Your task to perform on an android device: Show me popular videos on Youtube Image 0: 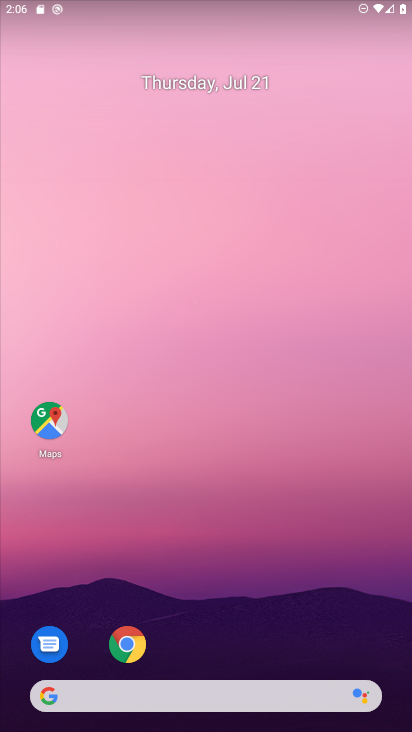
Step 0: drag from (261, 625) to (264, 180)
Your task to perform on an android device: Show me popular videos on Youtube Image 1: 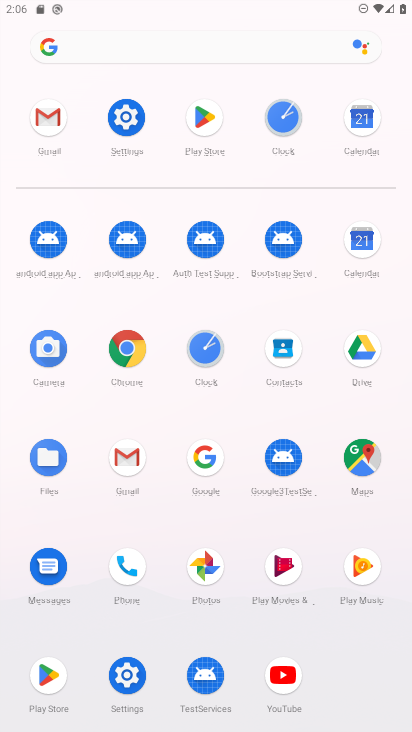
Step 1: click (272, 678)
Your task to perform on an android device: Show me popular videos on Youtube Image 2: 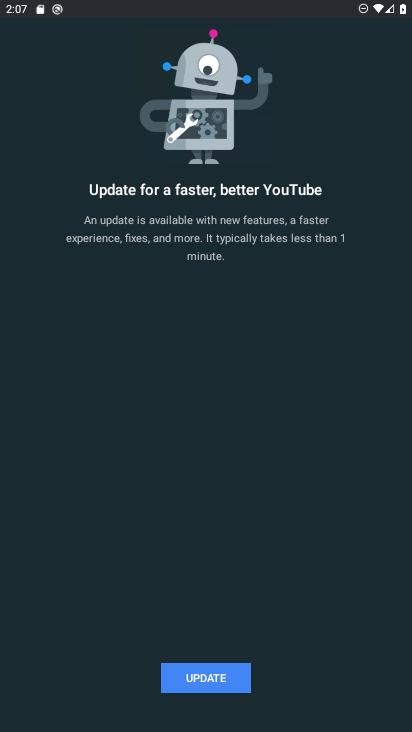
Step 2: click (212, 678)
Your task to perform on an android device: Show me popular videos on Youtube Image 3: 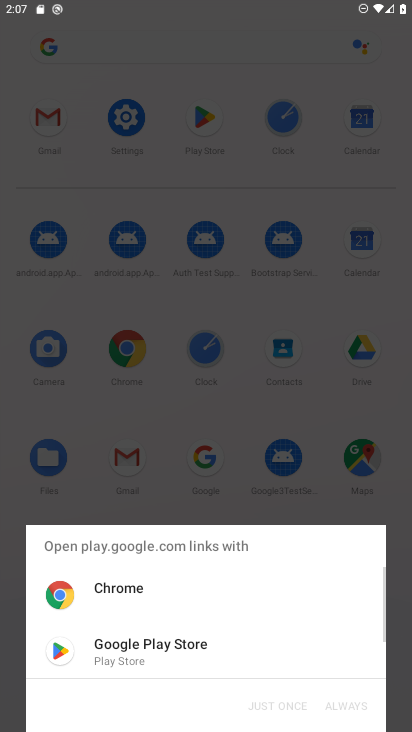
Step 3: click (136, 634)
Your task to perform on an android device: Show me popular videos on Youtube Image 4: 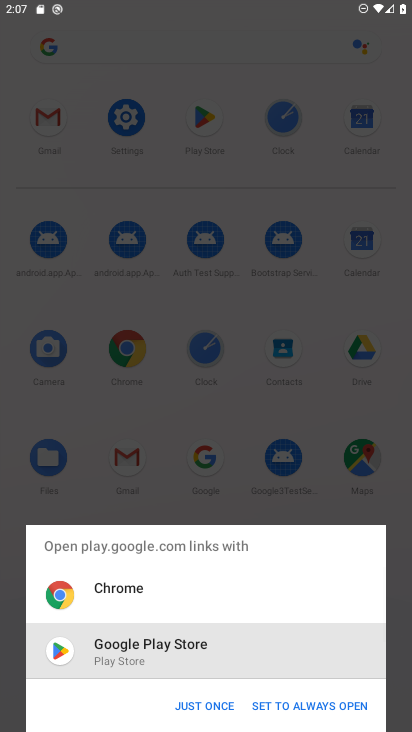
Step 4: click (215, 700)
Your task to perform on an android device: Show me popular videos on Youtube Image 5: 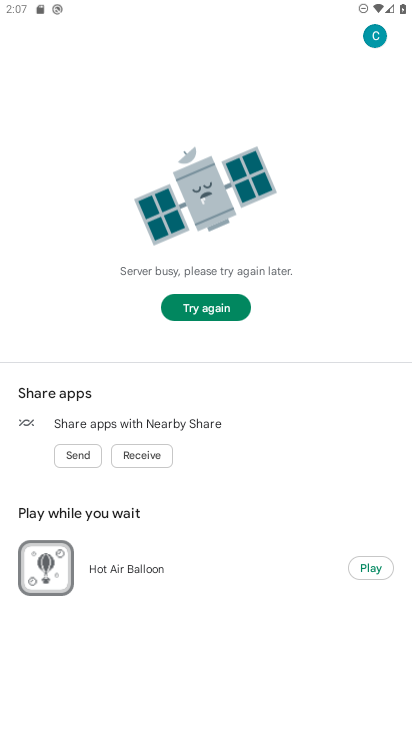
Step 5: click (199, 302)
Your task to perform on an android device: Show me popular videos on Youtube Image 6: 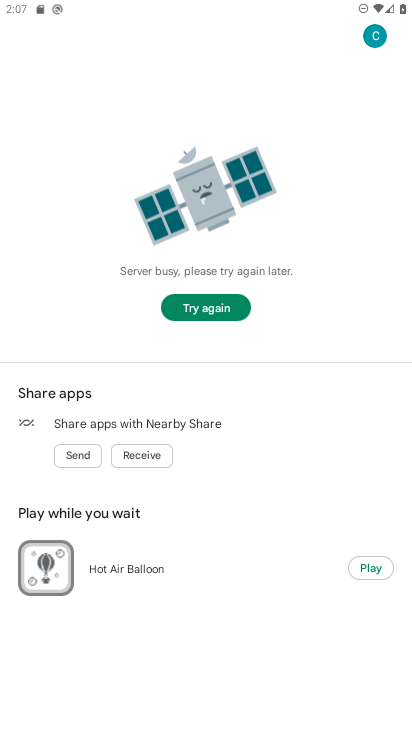
Step 6: click (199, 302)
Your task to perform on an android device: Show me popular videos on Youtube Image 7: 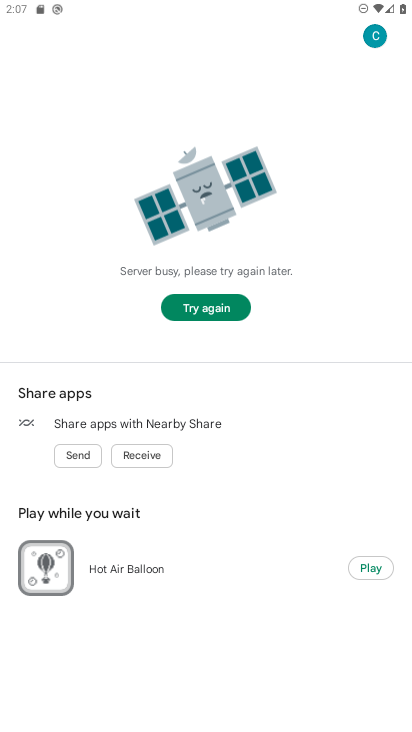
Step 7: task complete